Your task to perform on an android device: toggle show notifications on the lock screen Image 0: 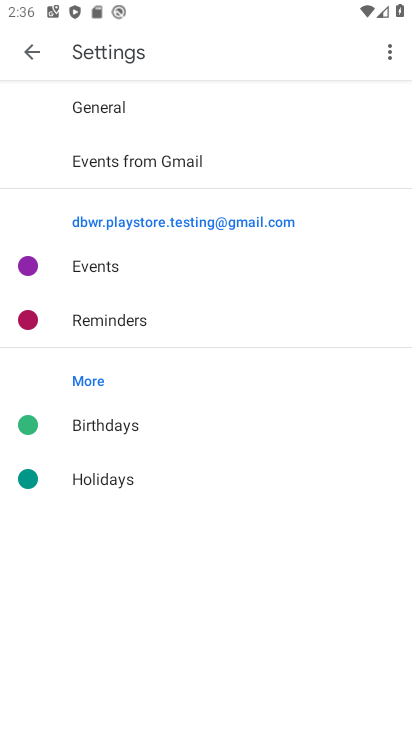
Step 0: press home button
Your task to perform on an android device: toggle show notifications on the lock screen Image 1: 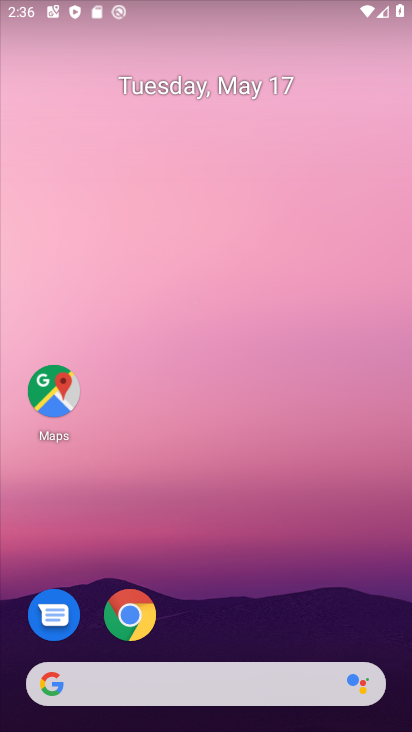
Step 1: drag from (195, 727) to (181, 218)
Your task to perform on an android device: toggle show notifications on the lock screen Image 2: 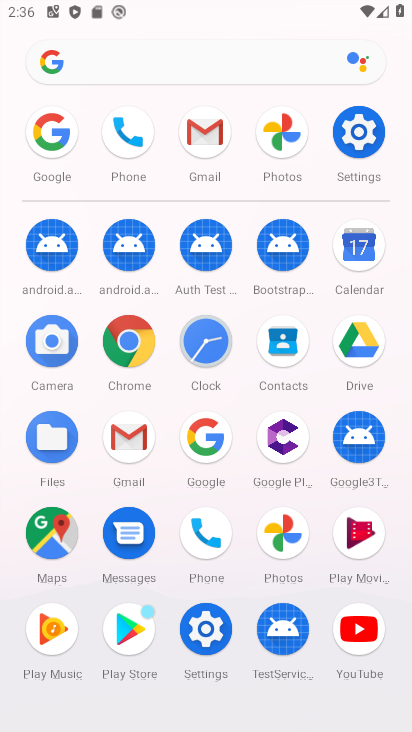
Step 2: click (360, 125)
Your task to perform on an android device: toggle show notifications on the lock screen Image 3: 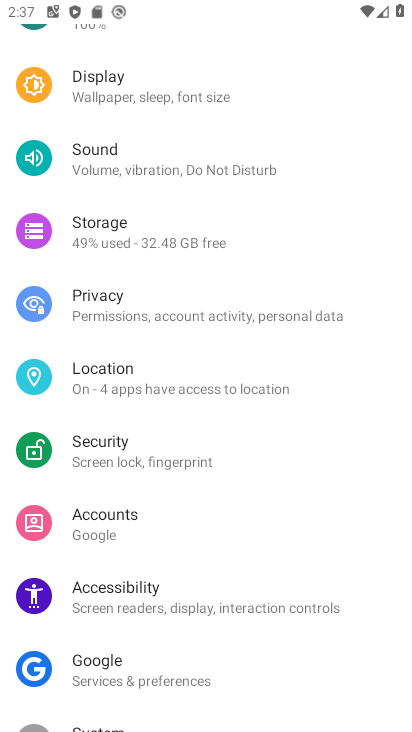
Step 3: drag from (152, 140) to (158, 391)
Your task to perform on an android device: toggle show notifications on the lock screen Image 4: 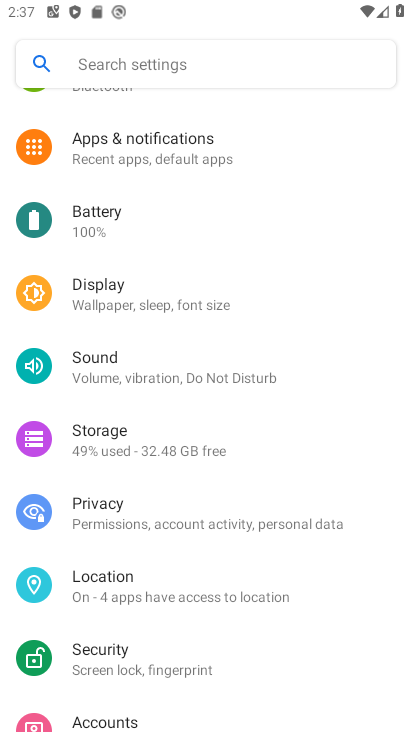
Step 4: click (157, 155)
Your task to perform on an android device: toggle show notifications on the lock screen Image 5: 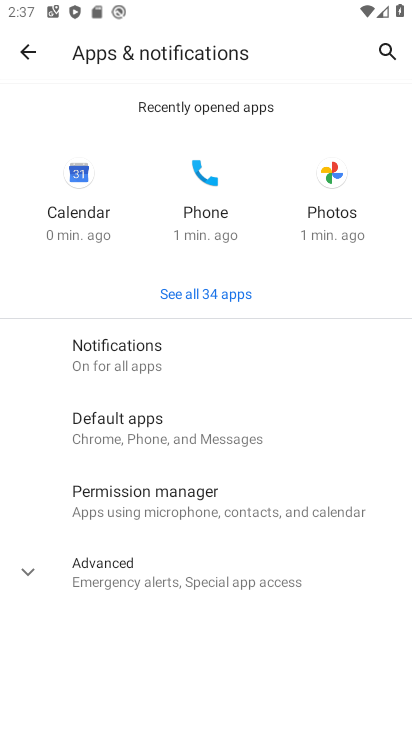
Step 5: click (118, 356)
Your task to perform on an android device: toggle show notifications on the lock screen Image 6: 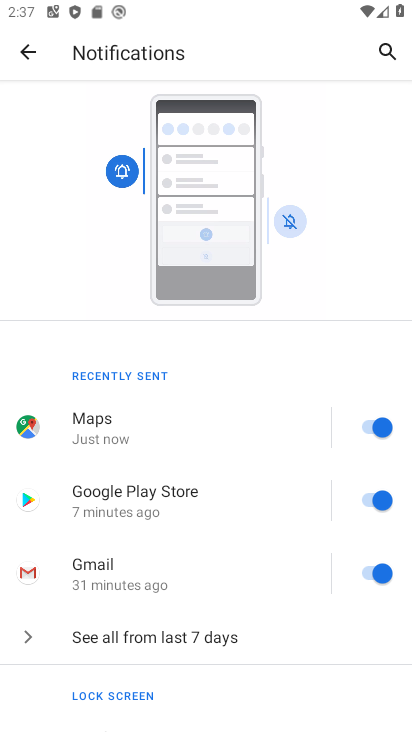
Step 6: drag from (191, 658) to (183, 289)
Your task to perform on an android device: toggle show notifications on the lock screen Image 7: 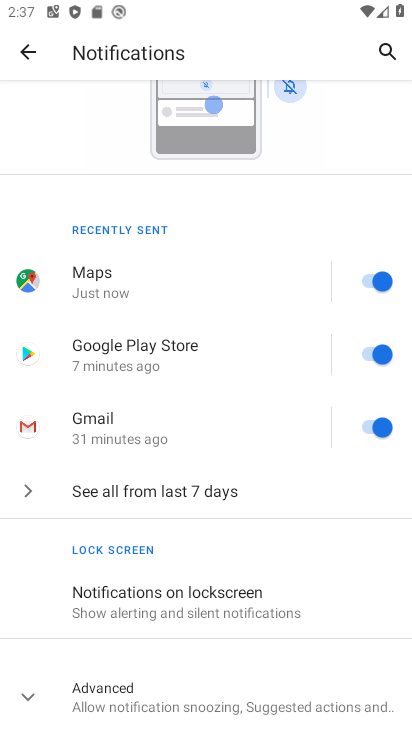
Step 7: click (179, 601)
Your task to perform on an android device: toggle show notifications on the lock screen Image 8: 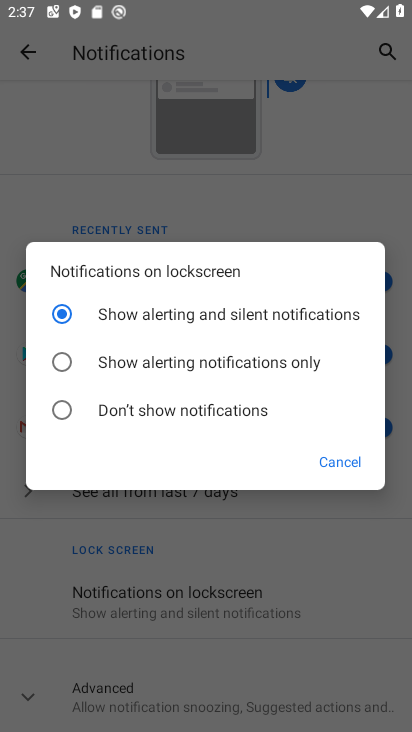
Step 8: click (65, 408)
Your task to perform on an android device: toggle show notifications on the lock screen Image 9: 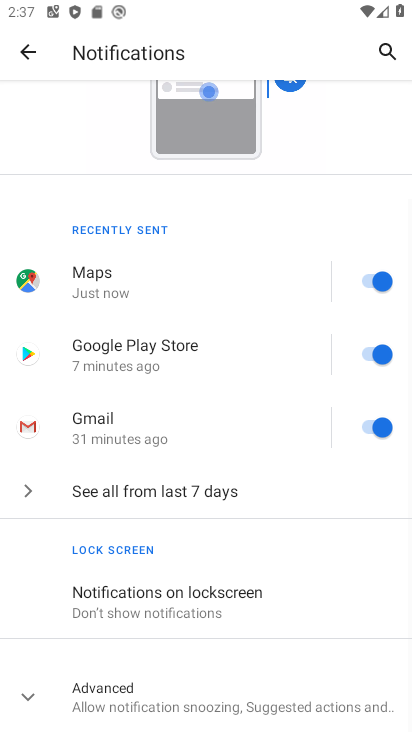
Step 9: task complete